Your task to perform on an android device: turn smart compose on in the gmail app Image 0: 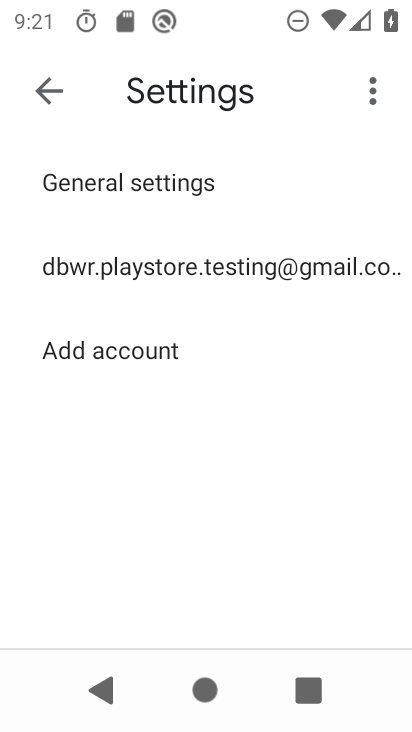
Step 0: click (126, 268)
Your task to perform on an android device: turn smart compose on in the gmail app Image 1: 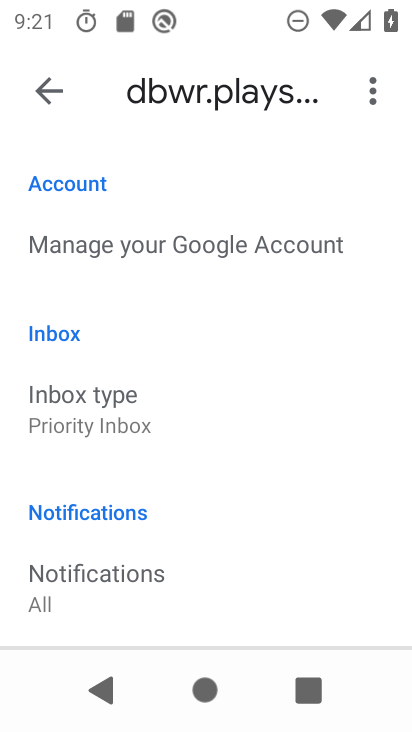
Step 1: task complete